Your task to perform on an android device: change notifications settings Image 0: 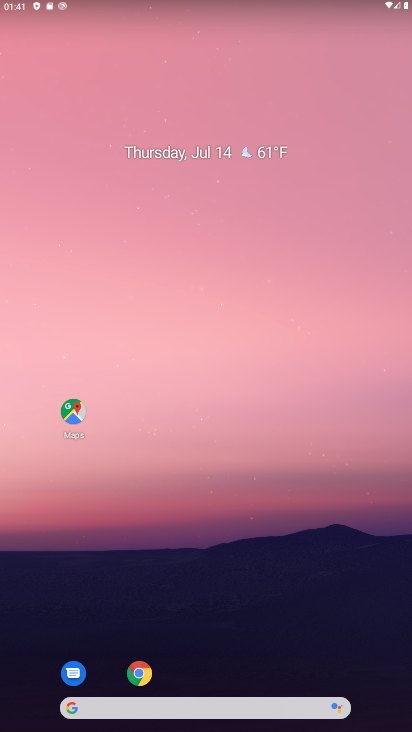
Step 0: drag from (304, 658) to (271, 24)
Your task to perform on an android device: change notifications settings Image 1: 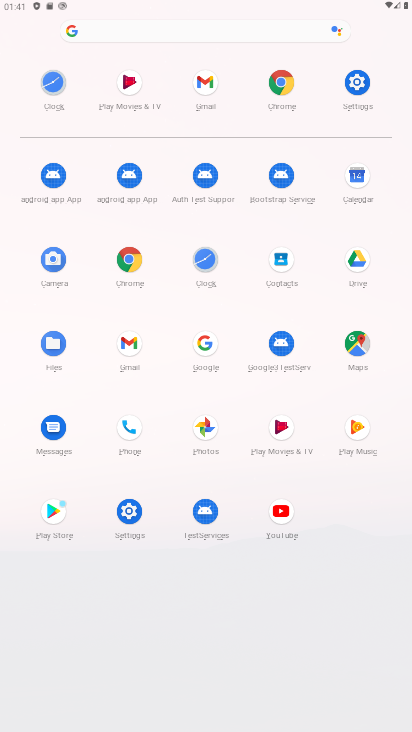
Step 1: click (352, 91)
Your task to perform on an android device: change notifications settings Image 2: 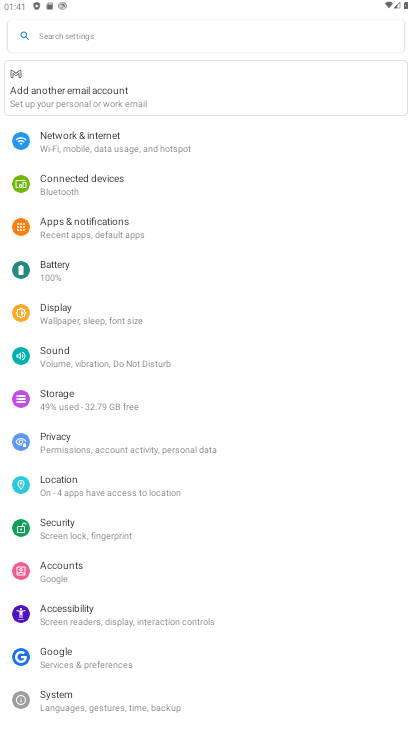
Step 2: click (128, 214)
Your task to perform on an android device: change notifications settings Image 3: 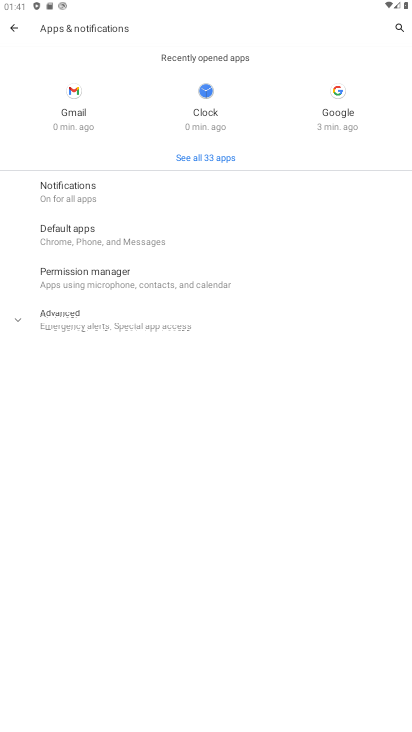
Step 3: click (118, 177)
Your task to perform on an android device: change notifications settings Image 4: 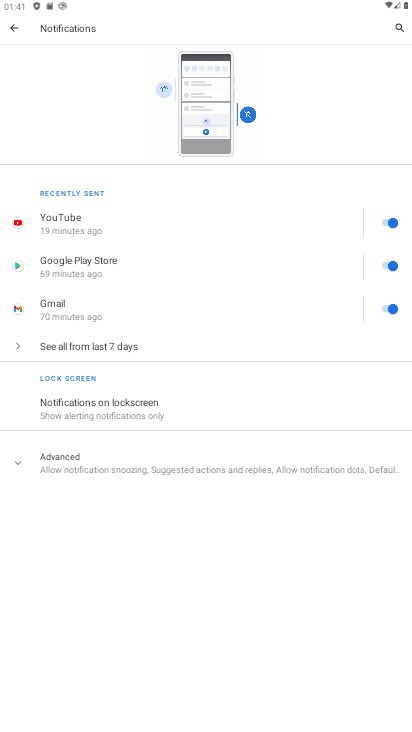
Step 4: click (374, 234)
Your task to perform on an android device: change notifications settings Image 5: 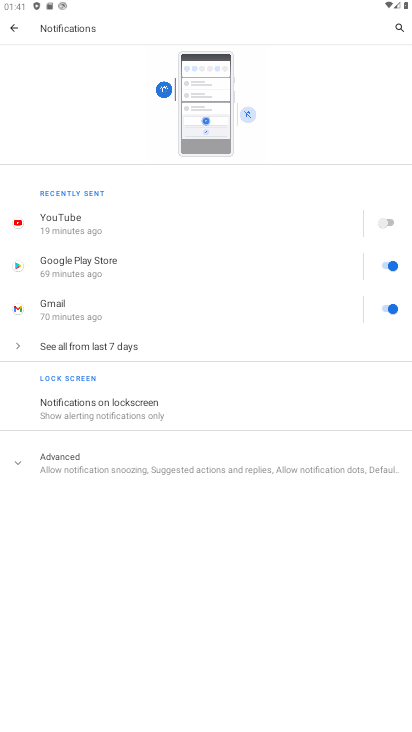
Step 5: task complete